Your task to perform on an android device: Open Google Chrome and click the shortcut for Amazon.com Image 0: 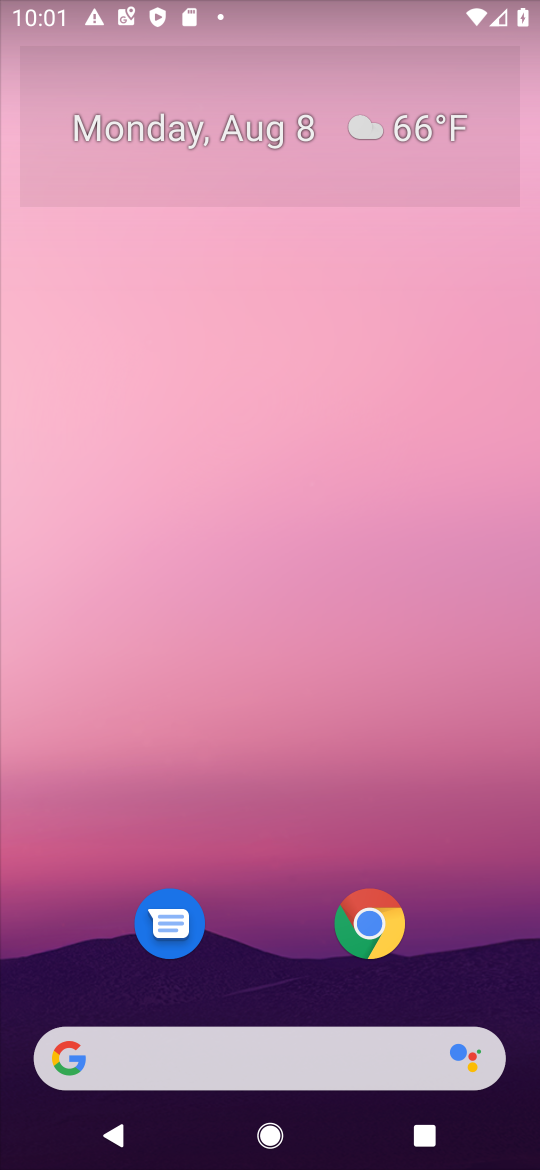
Step 0: click (171, 1063)
Your task to perform on an android device: Open Google Chrome and click the shortcut for Amazon.com Image 1: 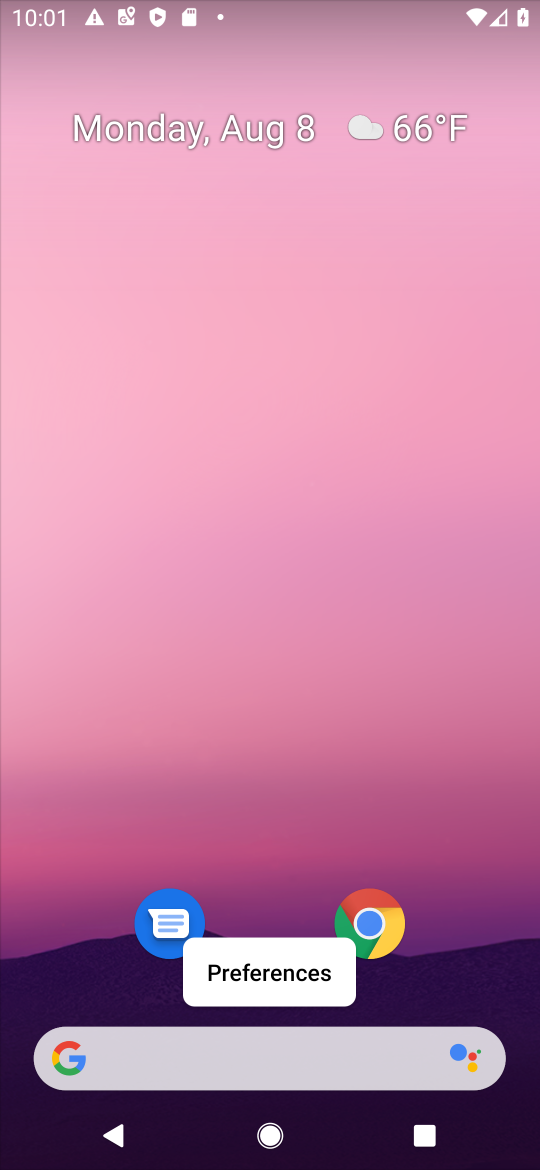
Step 1: click (169, 1067)
Your task to perform on an android device: Open Google Chrome and click the shortcut for Amazon.com Image 2: 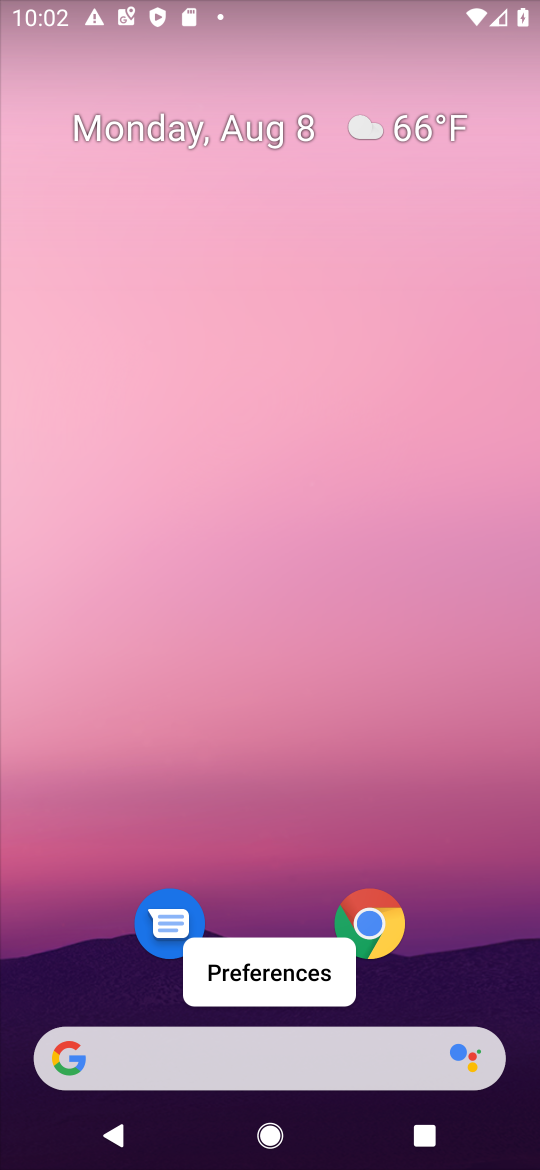
Step 2: task complete